Your task to perform on an android device: Check the news Image 0: 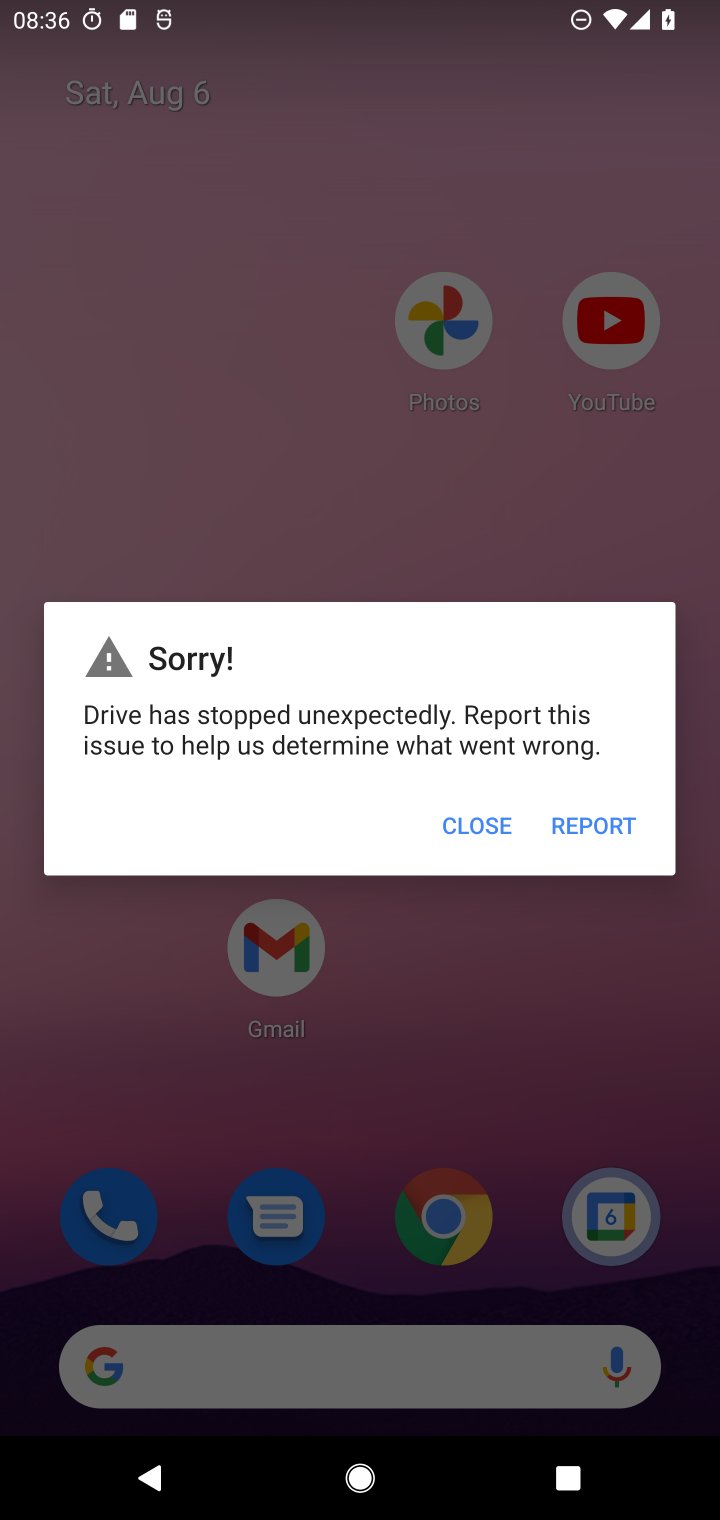
Step 0: press home button
Your task to perform on an android device: Check the news Image 1: 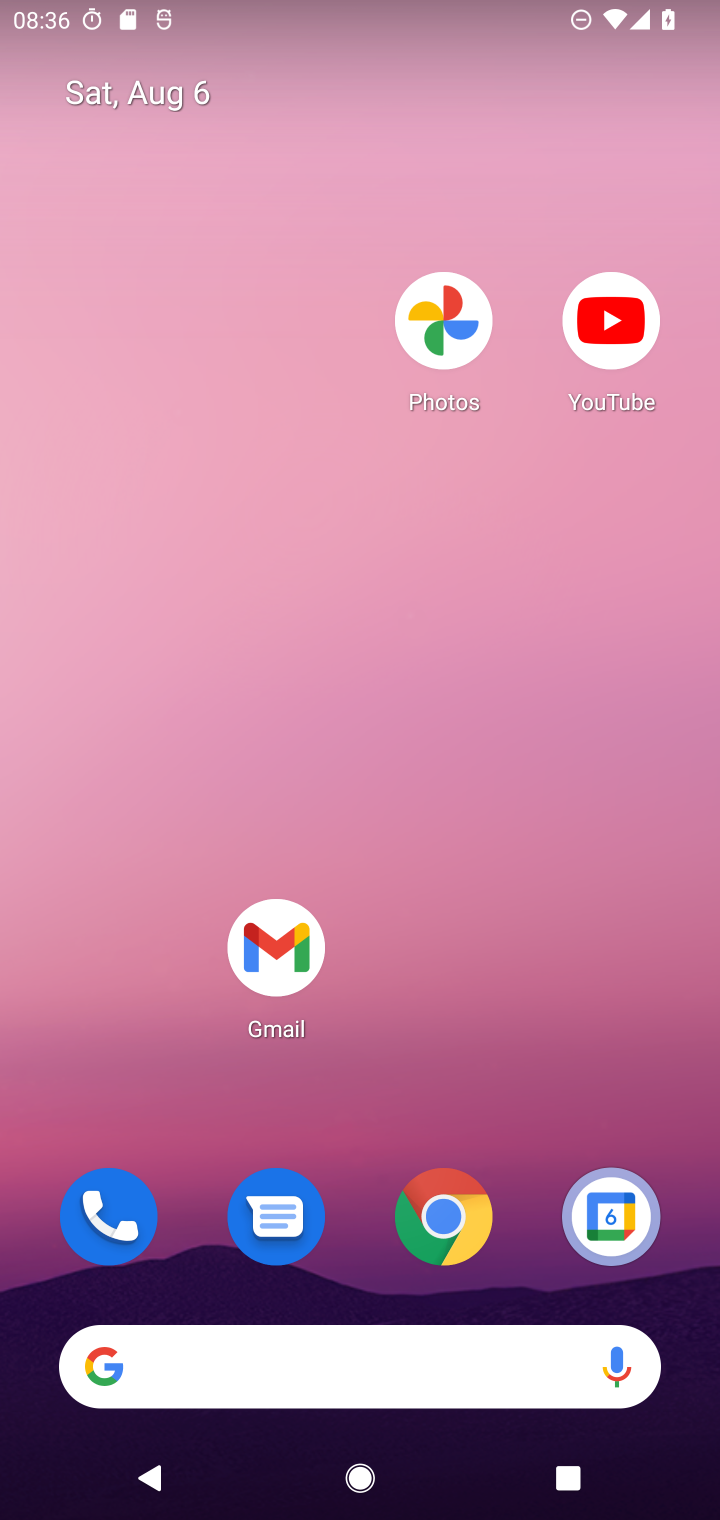
Step 1: drag from (415, 844) to (364, 95)
Your task to perform on an android device: Check the news Image 2: 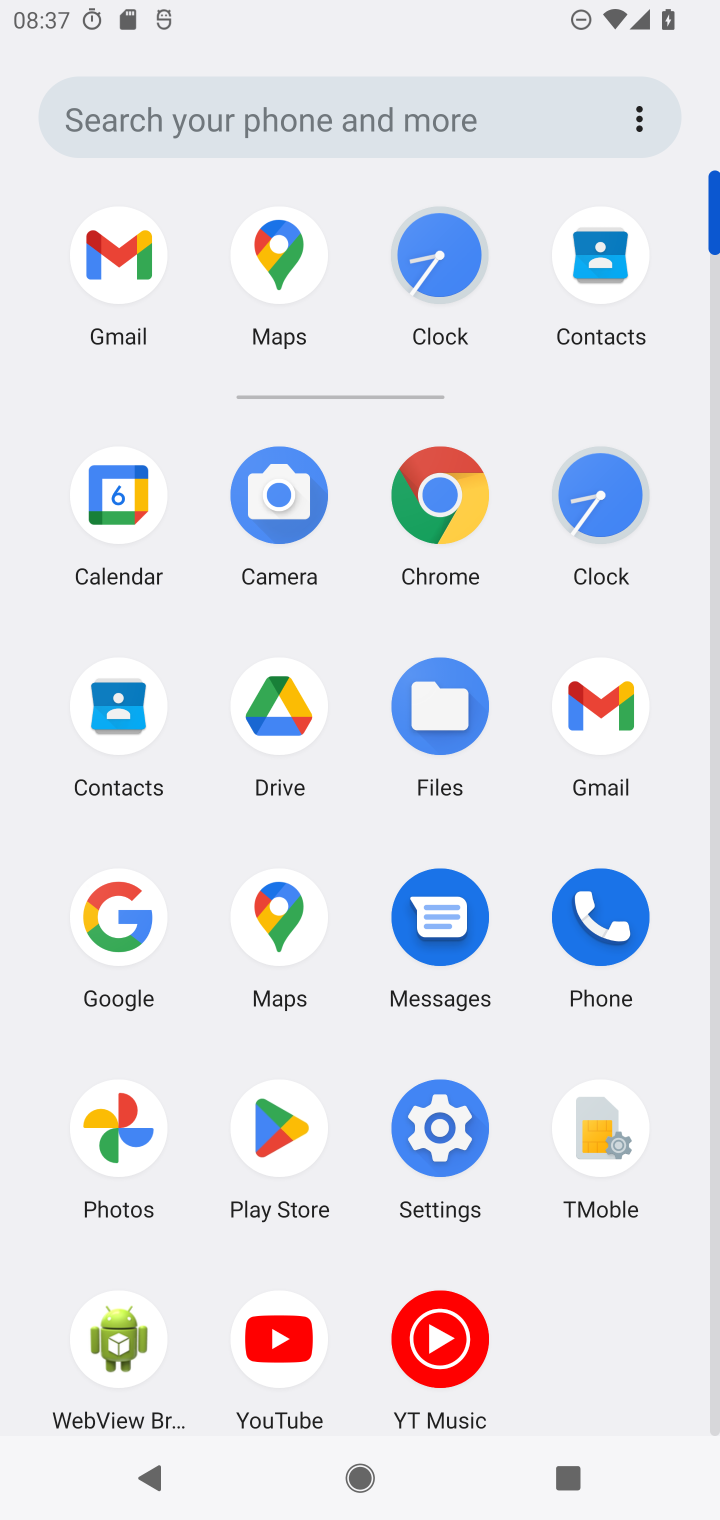
Step 2: click (434, 505)
Your task to perform on an android device: Check the news Image 3: 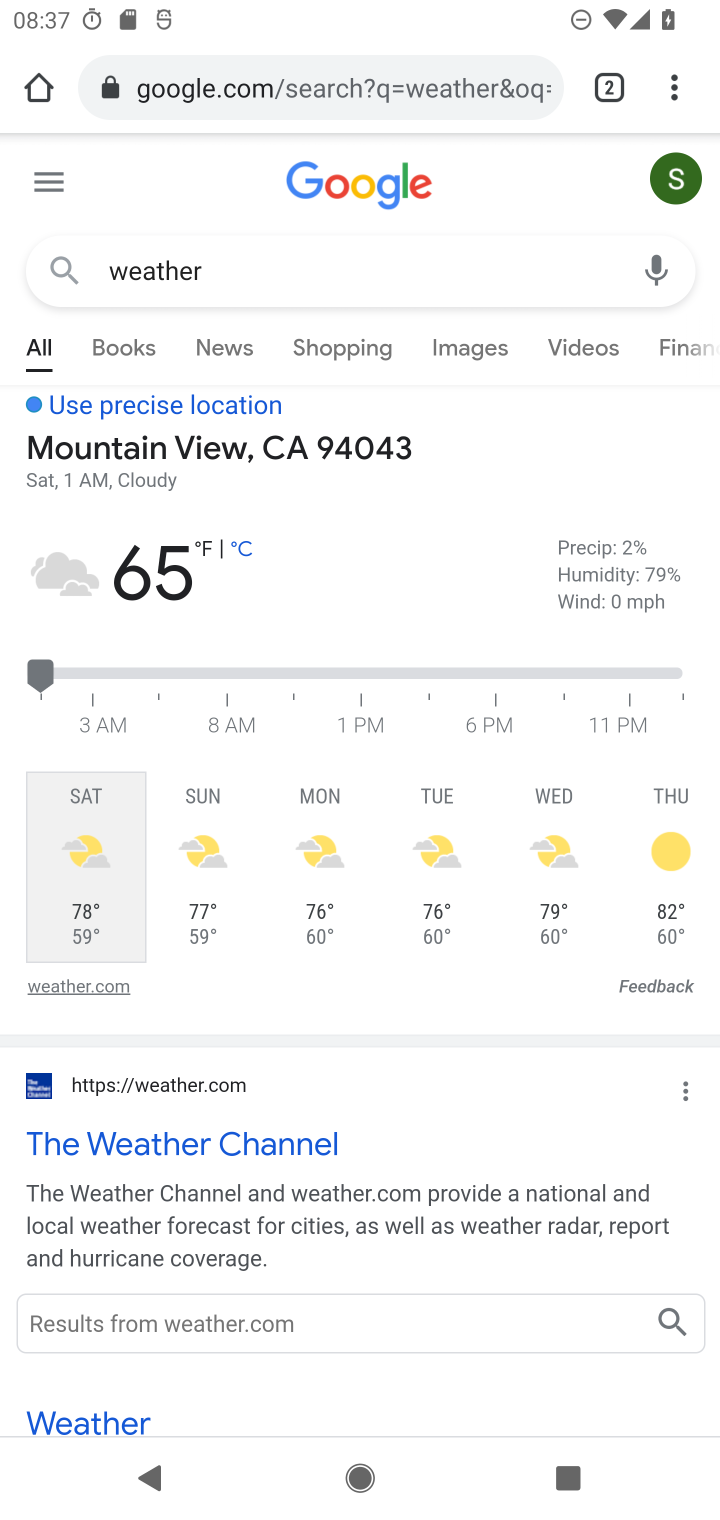
Step 3: click (321, 108)
Your task to perform on an android device: Check the news Image 4: 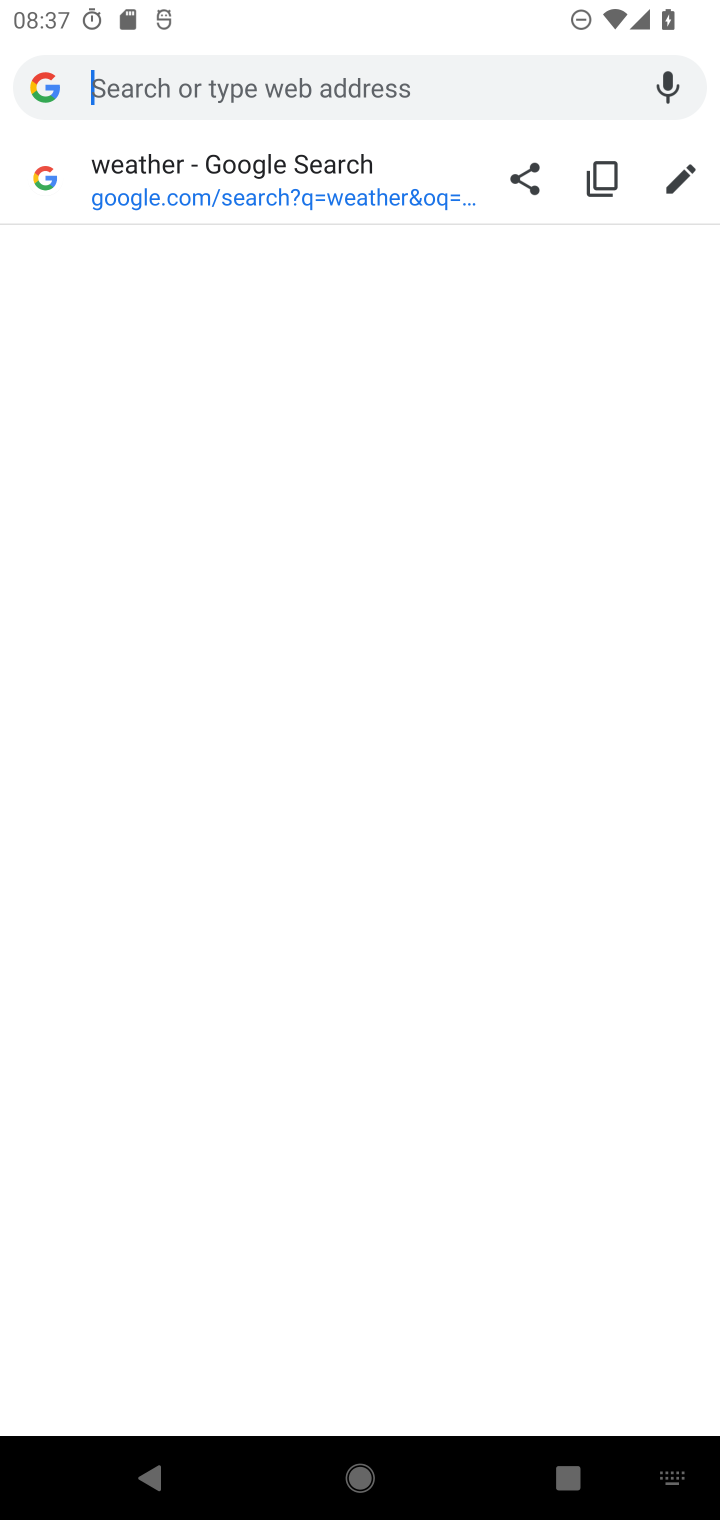
Step 4: type "news"
Your task to perform on an android device: Check the news Image 5: 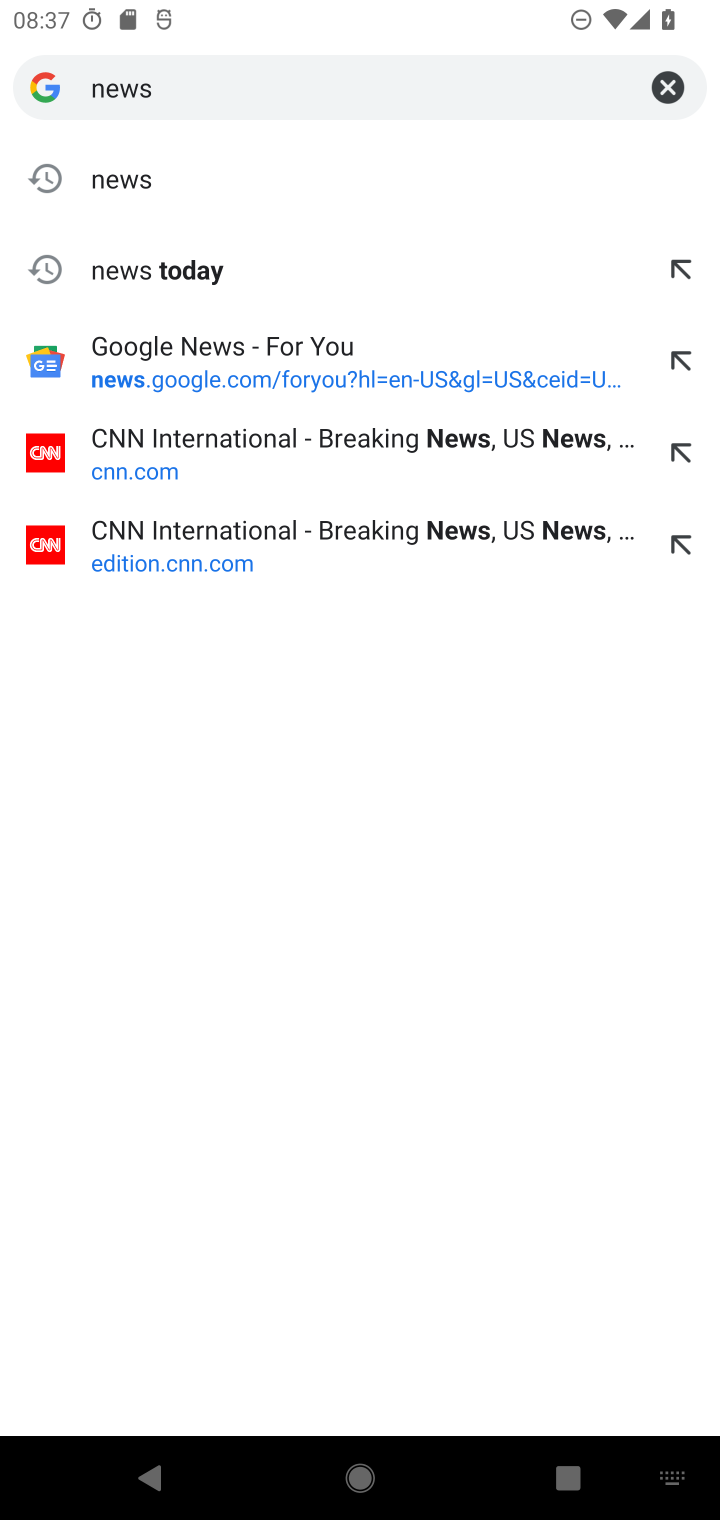
Step 5: click (142, 200)
Your task to perform on an android device: Check the news Image 6: 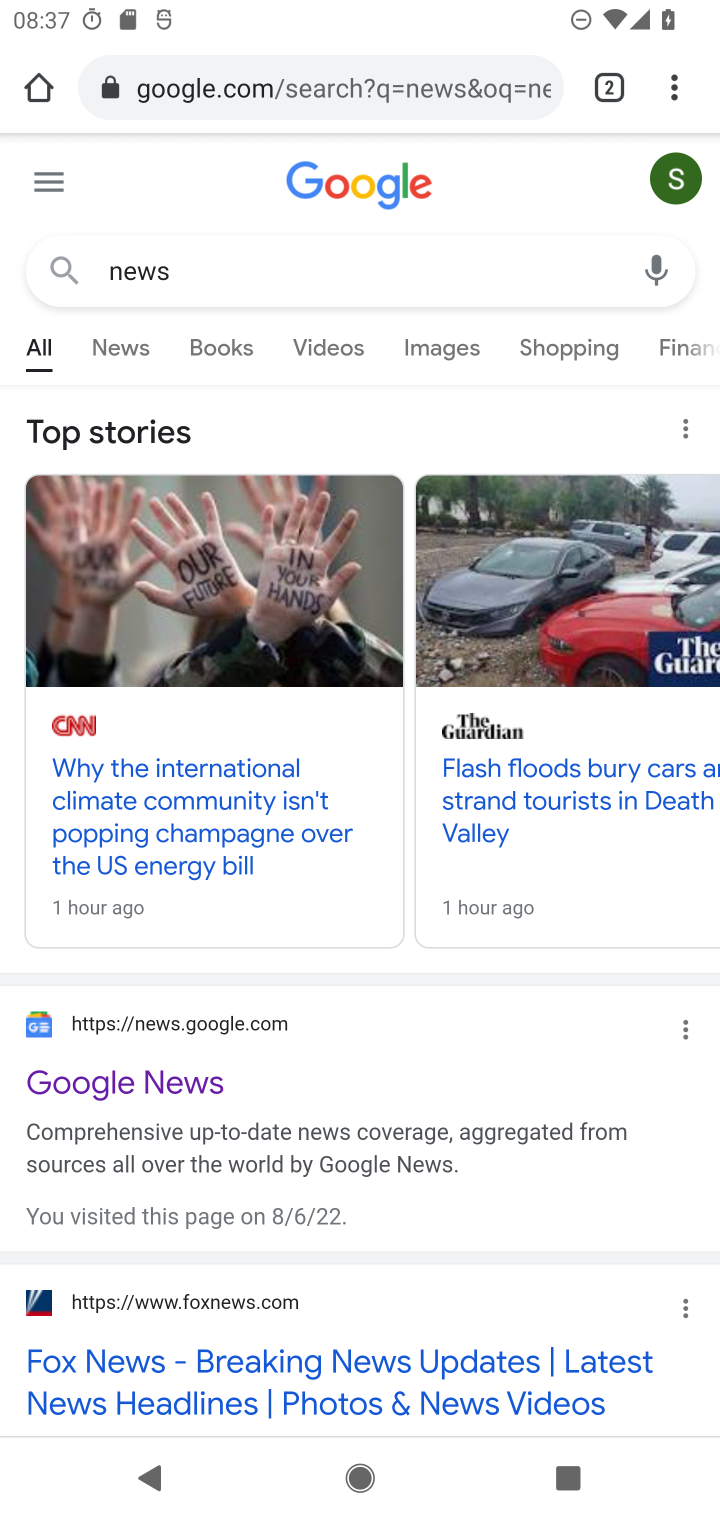
Step 6: click (134, 1094)
Your task to perform on an android device: Check the news Image 7: 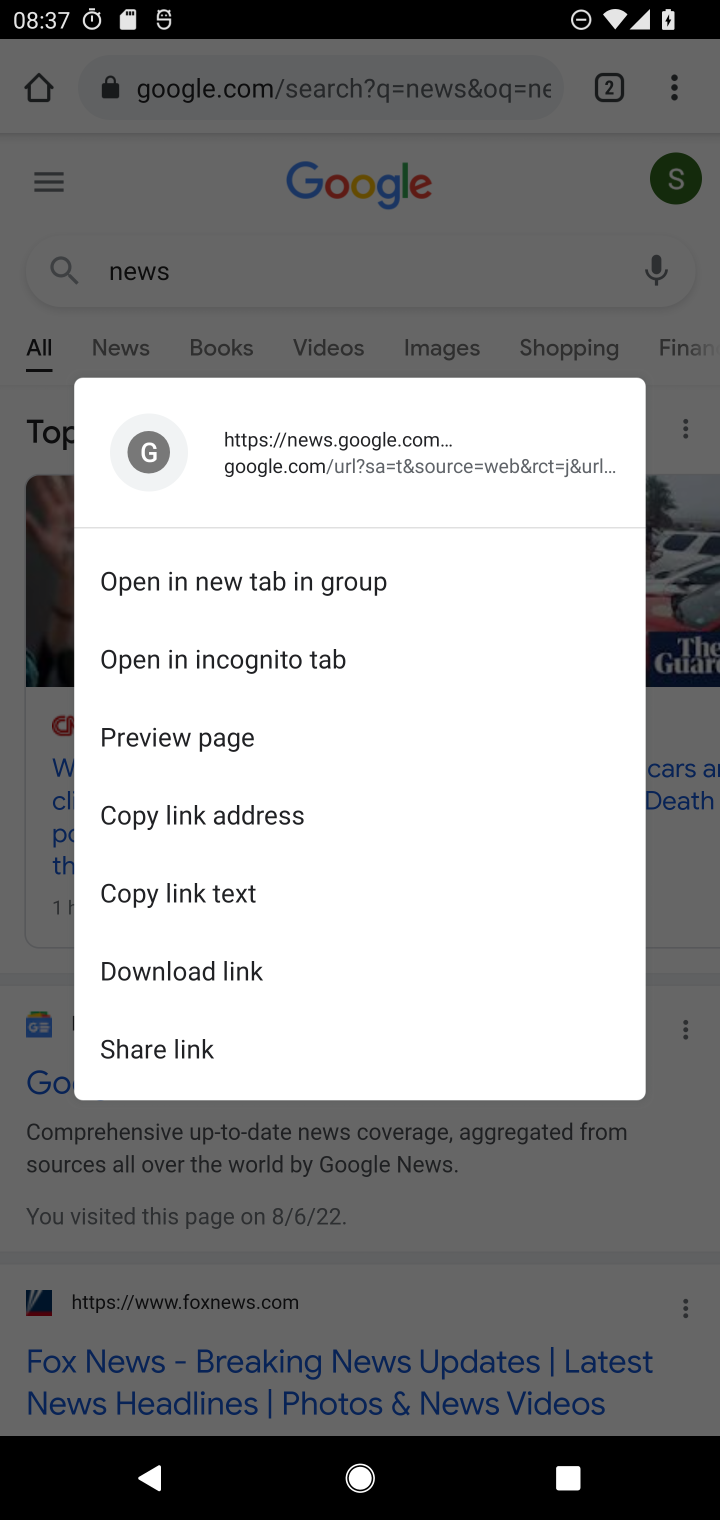
Step 7: click (701, 722)
Your task to perform on an android device: Check the news Image 8: 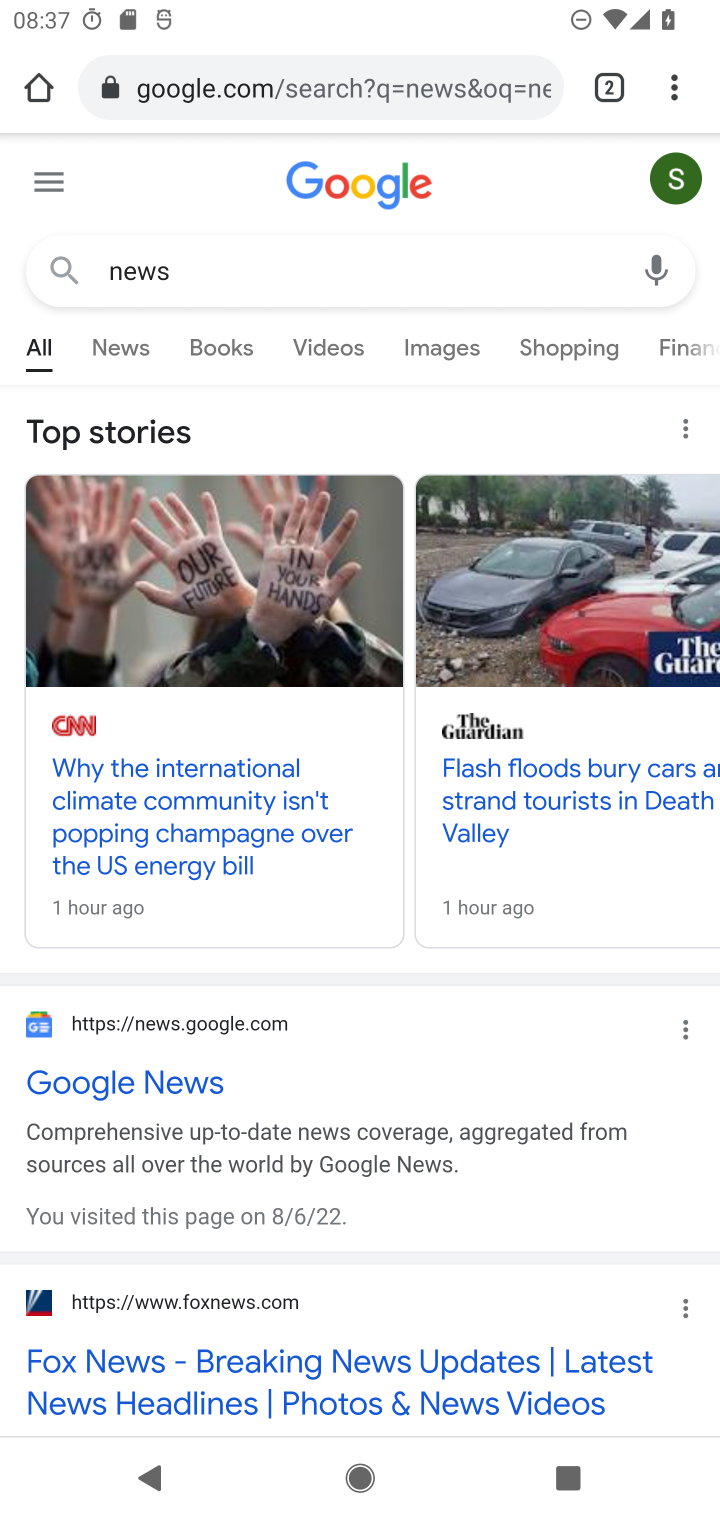
Step 8: click (172, 1085)
Your task to perform on an android device: Check the news Image 9: 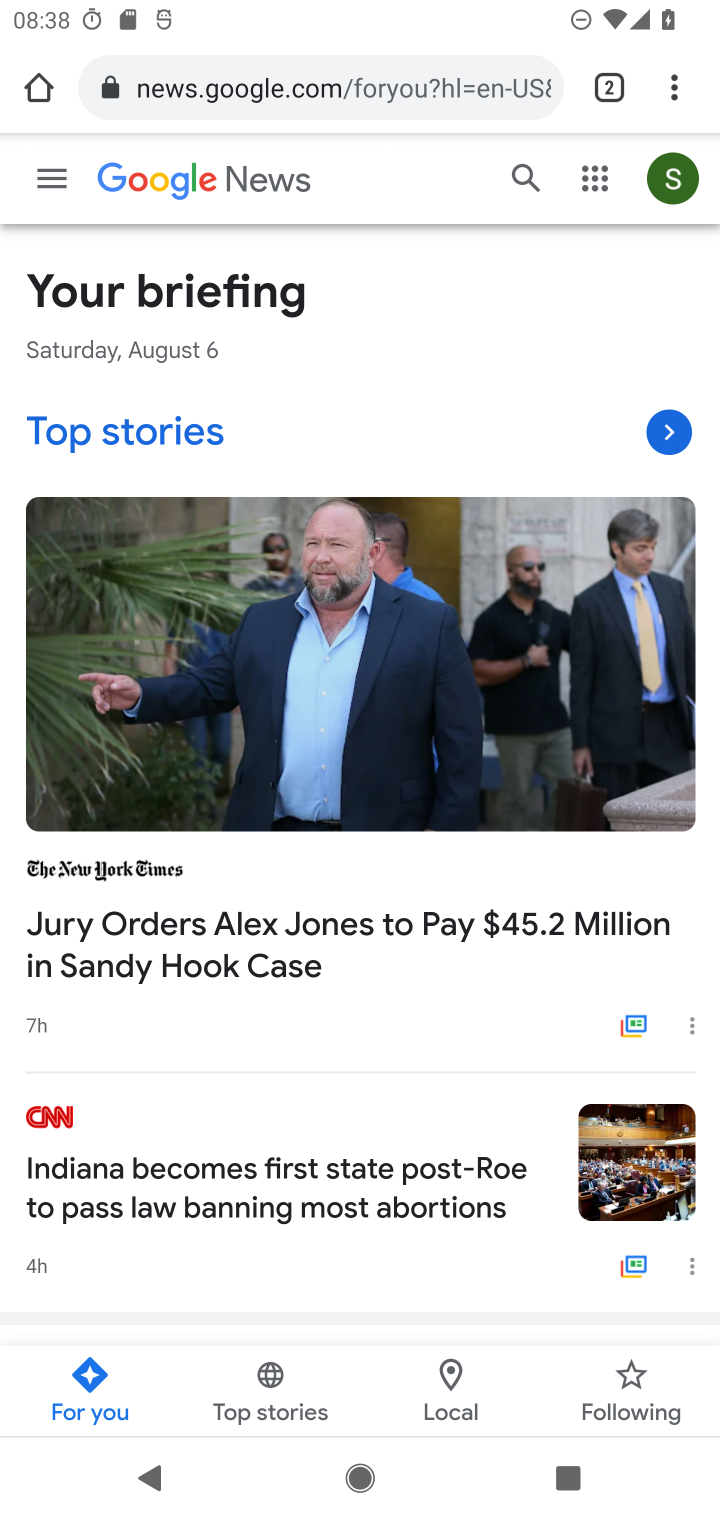
Step 9: task complete